Your task to perform on an android device: turn notification dots on Image 0: 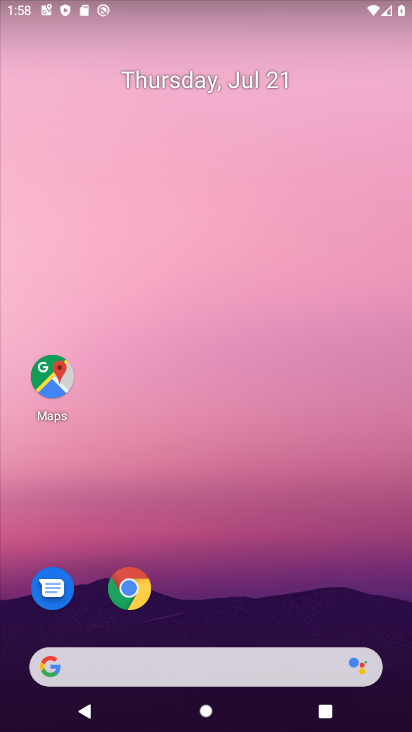
Step 0: drag from (216, 579) to (248, 365)
Your task to perform on an android device: turn notification dots on Image 1: 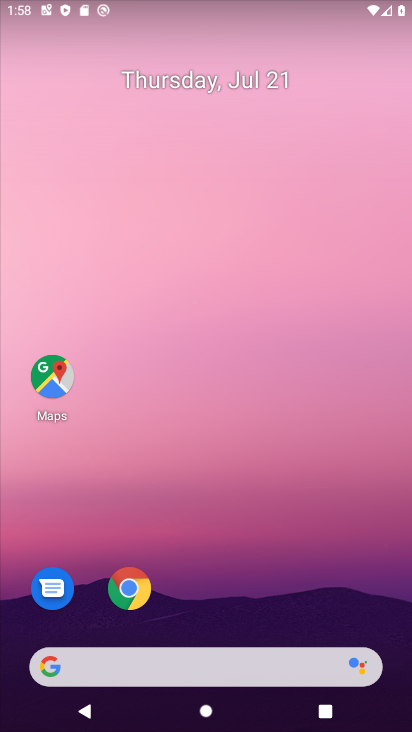
Step 1: drag from (202, 573) to (271, 181)
Your task to perform on an android device: turn notification dots on Image 2: 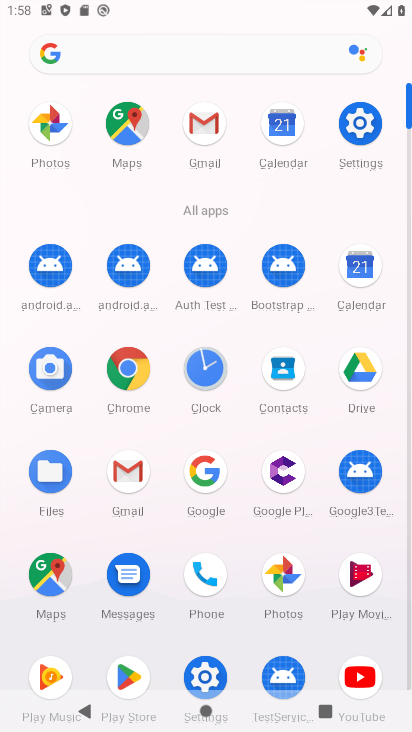
Step 2: click (212, 667)
Your task to perform on an android device: turn notification dots on Image 3: 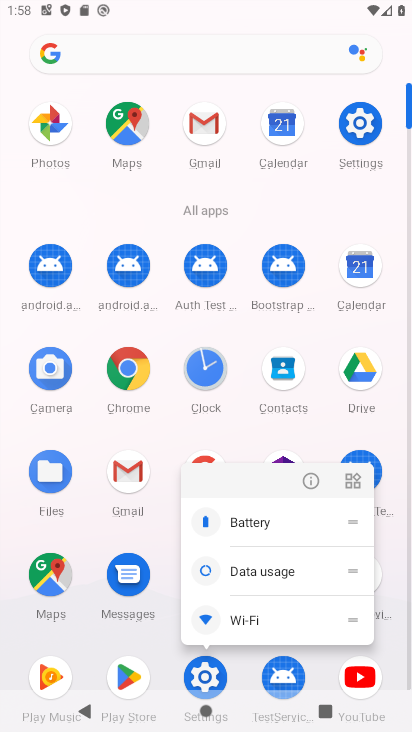
Step 3: click (308, 487)
Your task to perform on an android device: turn notification dots on Image 4: 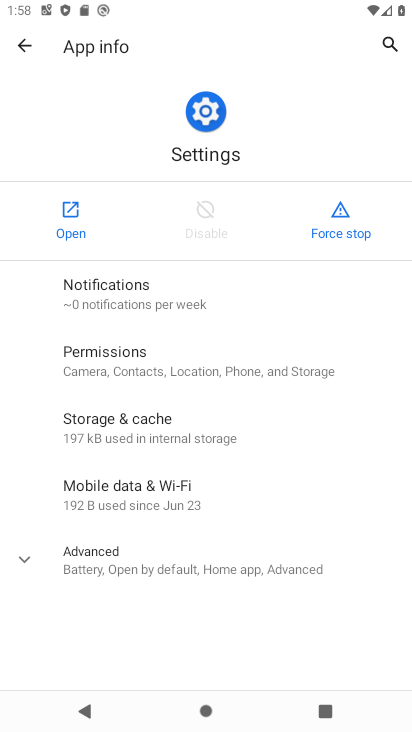
Step 4: click (75, 213)
Your task to perform on an android device: turn notification dots on Image 5: 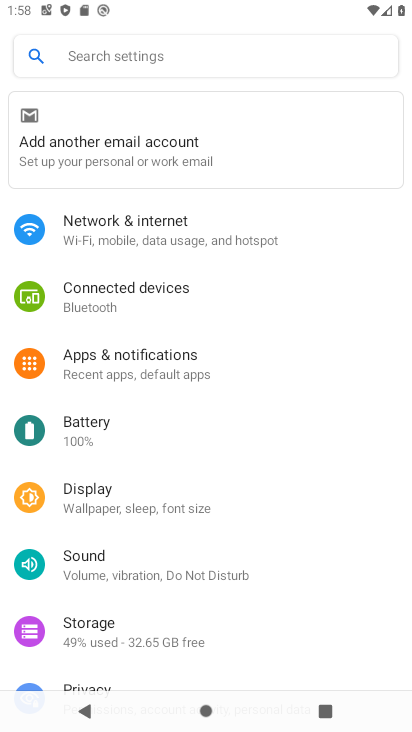
Step 5: click (180, 359)
Your task to perform on an android device: turn notification dots on Image 6: 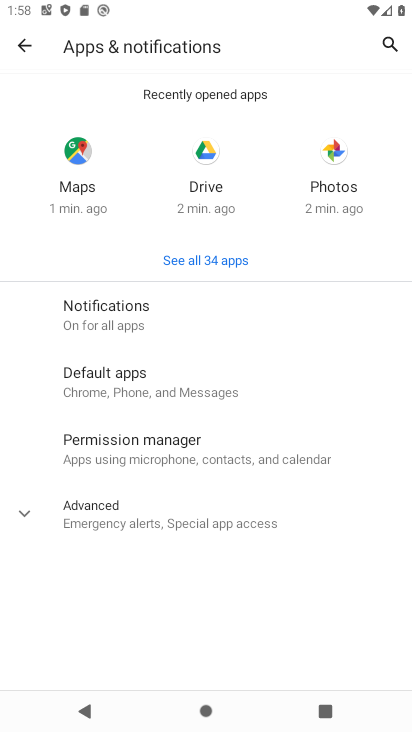
Step 6: click (157, 319)
Your task to perform on an android device: turn notification dots on Image 7: 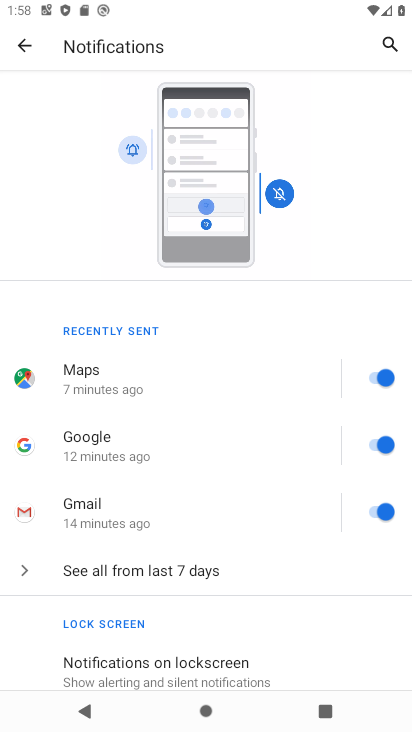
Step 7: drag from (188, 633) to (263, 161)
Your task to perform on an android device: turn notification dots on Image 8: 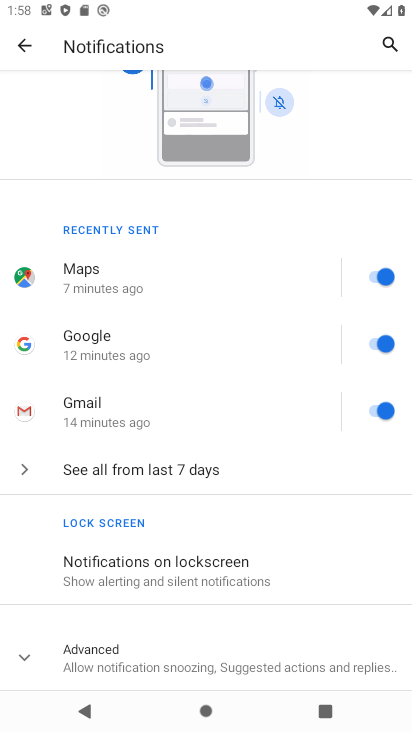
Step 8: click (146, 655)
Your task to perform on an android device: turn notification dots on Image 9: 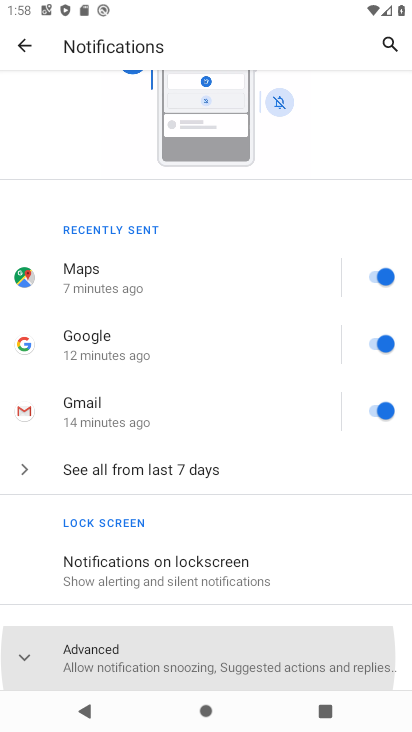
Step 9: drag from (165, 627) to (283, 53)
Your task to perform on an android device: turn notification dots on Image 10: 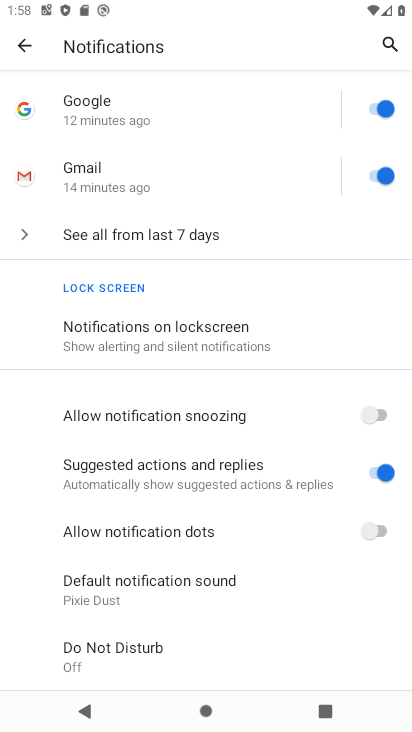
Step 10: click (224, 535)
Your task to perform on an android device: turn notification dots on Image 11: 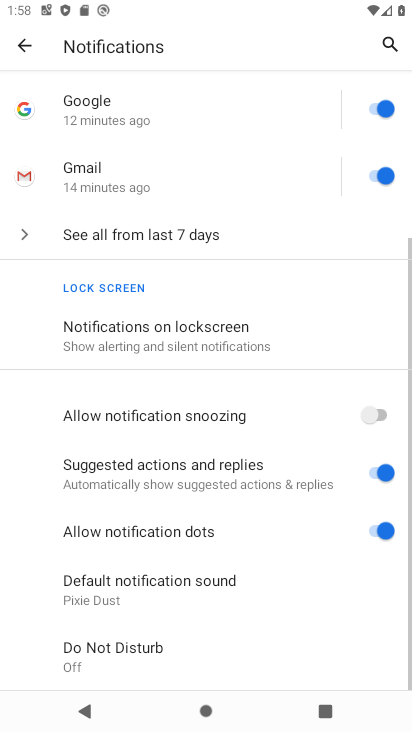
Step 11: task complete